Your task to perform on an android device: What's on my calendar tomorrow? Image 0: 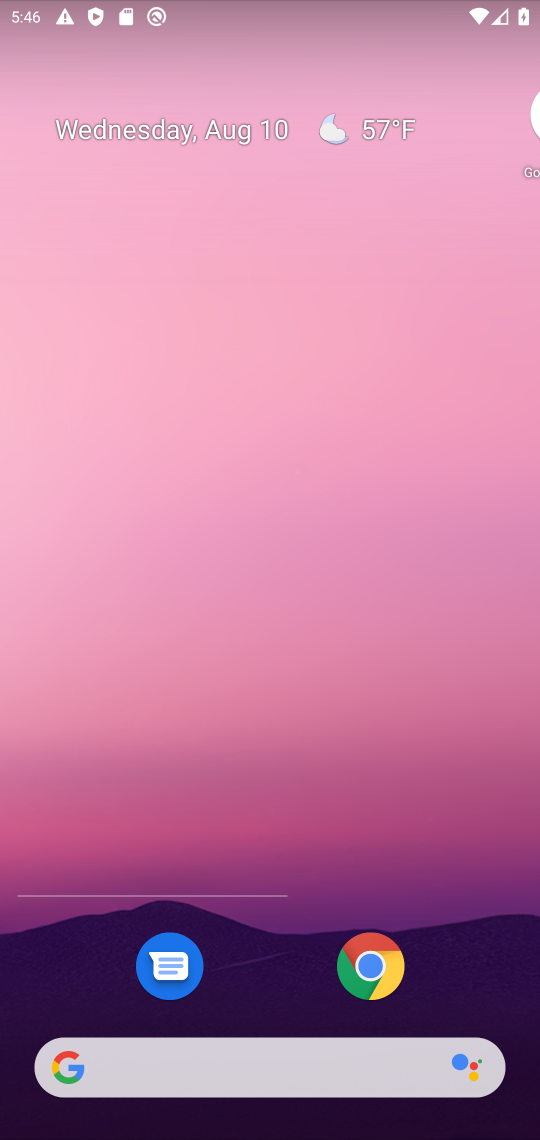
Step 0: press home button
Your task to perform on an android device: What's on my calendar tomorrow? Image 1: 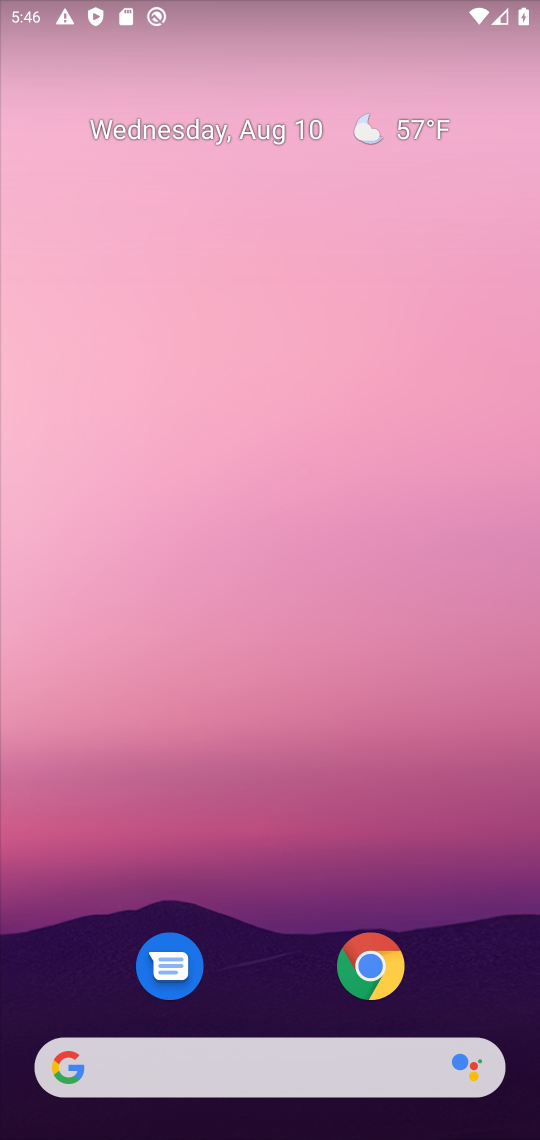
Step 1: drag from (250, 1020) to (297, 266)
Your task to perform on an android device: What's on my calendar tomorrow? Image 2: 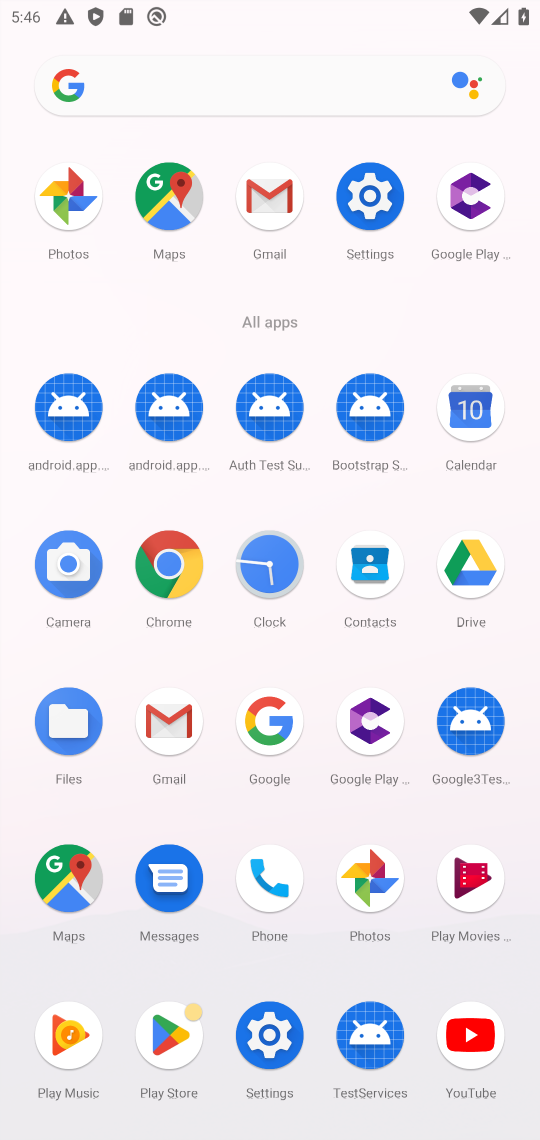
Step 2: click (474, 408)
Your task to perform on an android device: What's on my calendar tomorrow? Image 3: 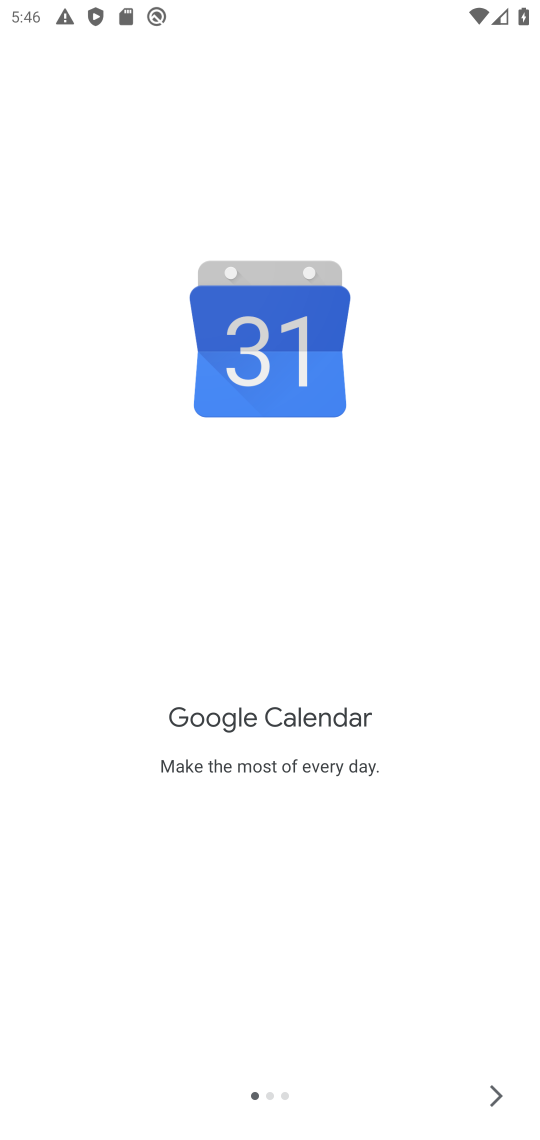
Step 3: click (488, 1111)
Your task to perform on an android device: What's on my calendar tomorrow? Image 4: 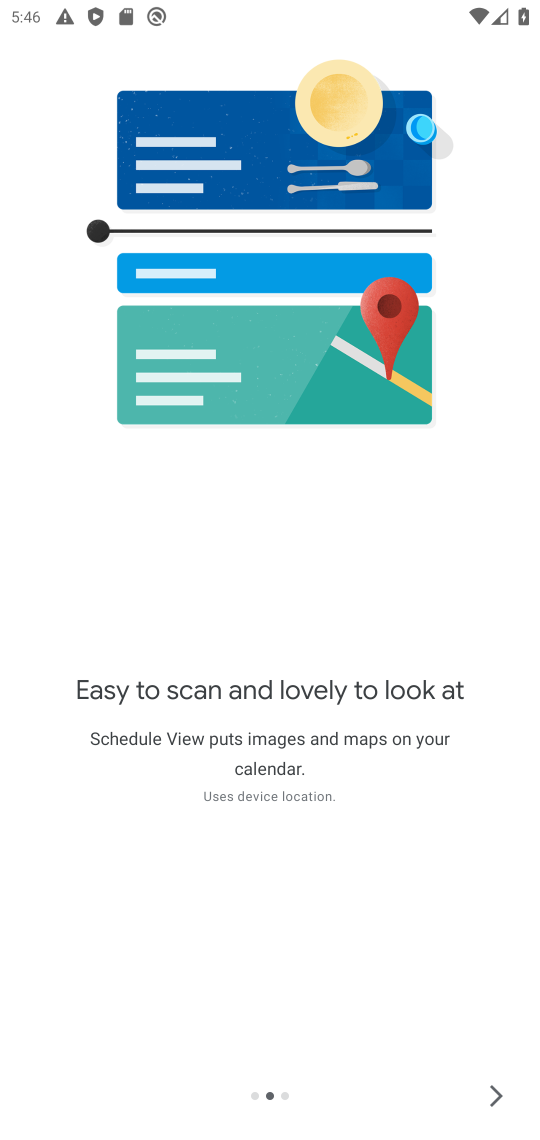
Step 4: click (499, 1091)
Your task to perform on an android device: What's on my calendar tomorrow? Image 5: 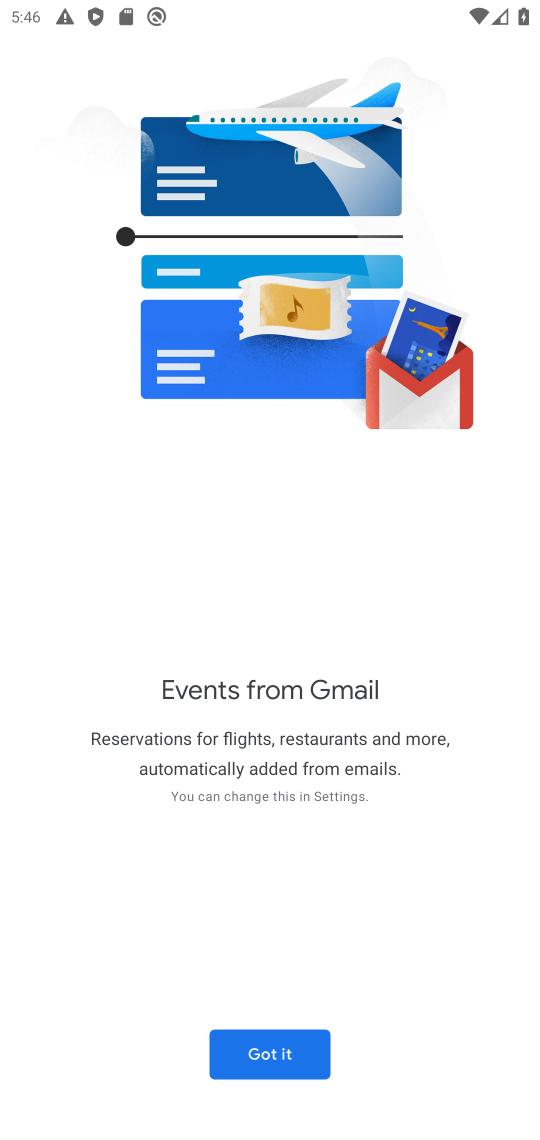
Step 5: click (290, 1053)
Your task to perform on an android device: What's on my calendar tomorrow? Image 6: 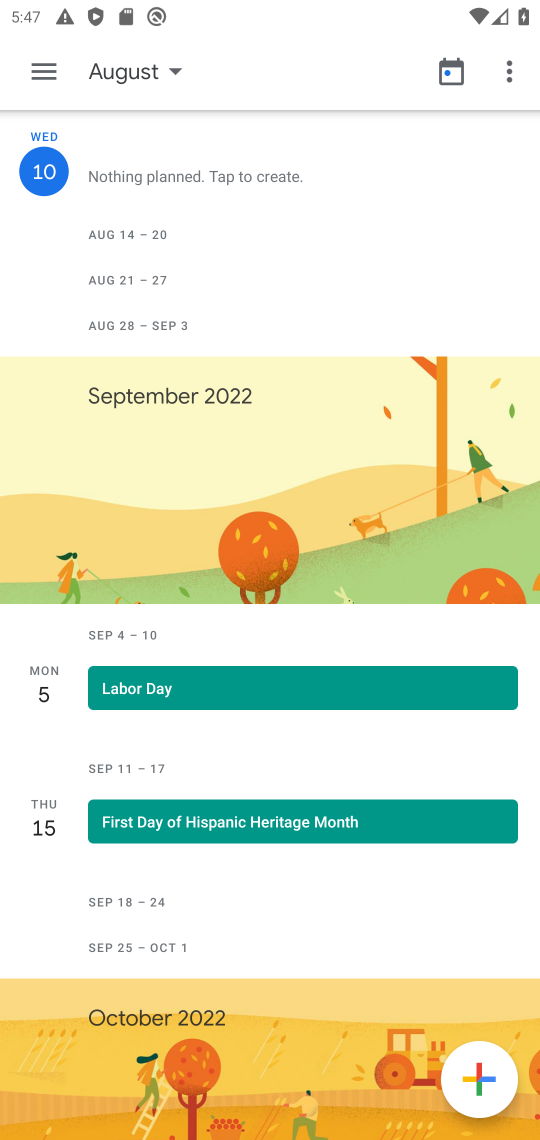
Step 6: click (178, 75)
Your task to perform on an android device: What's on my calendar tomorrow? Image 7: 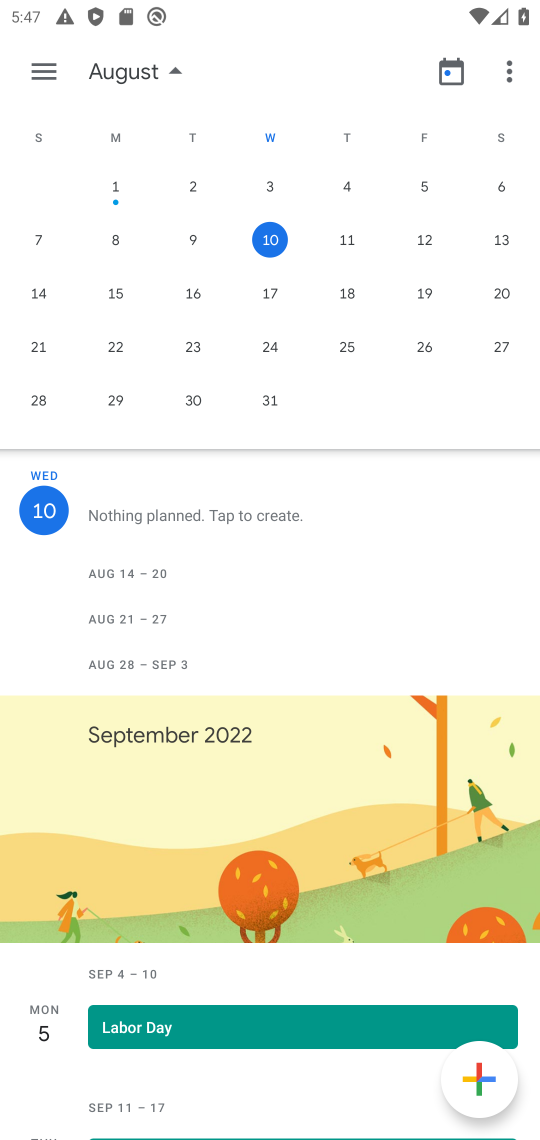
Step 7: click (341, 240)
Your task to perform on an android device: What's on my calendar tomorrow? Image 8: 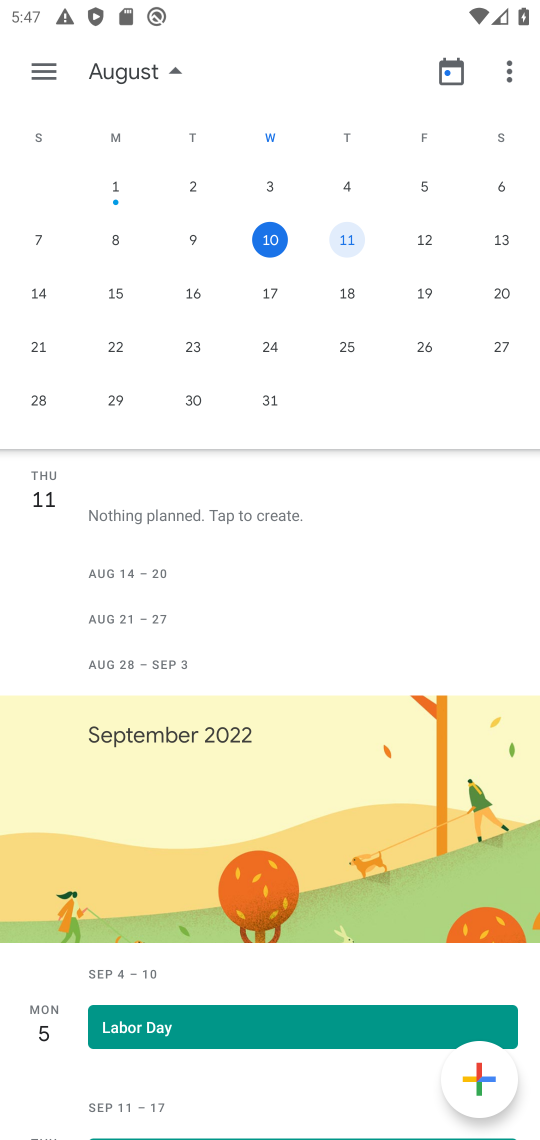
Step 8: task complete